Your task to perform on an android device: change the clock display to show seconds Image 0: 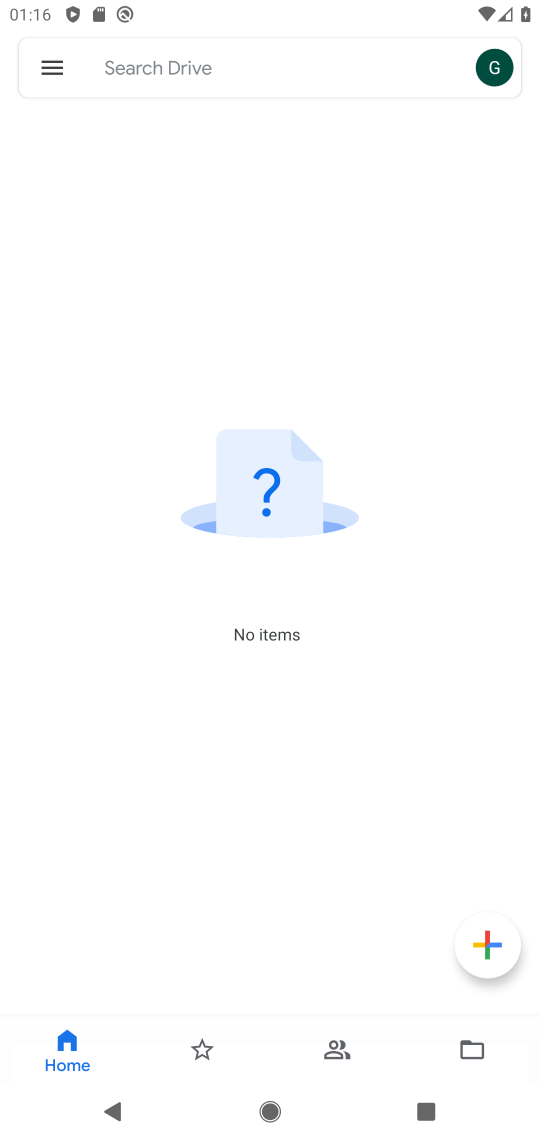
Step 0: press home button
Your task to perform on an android device: change the clock display to show seconds Image 1: 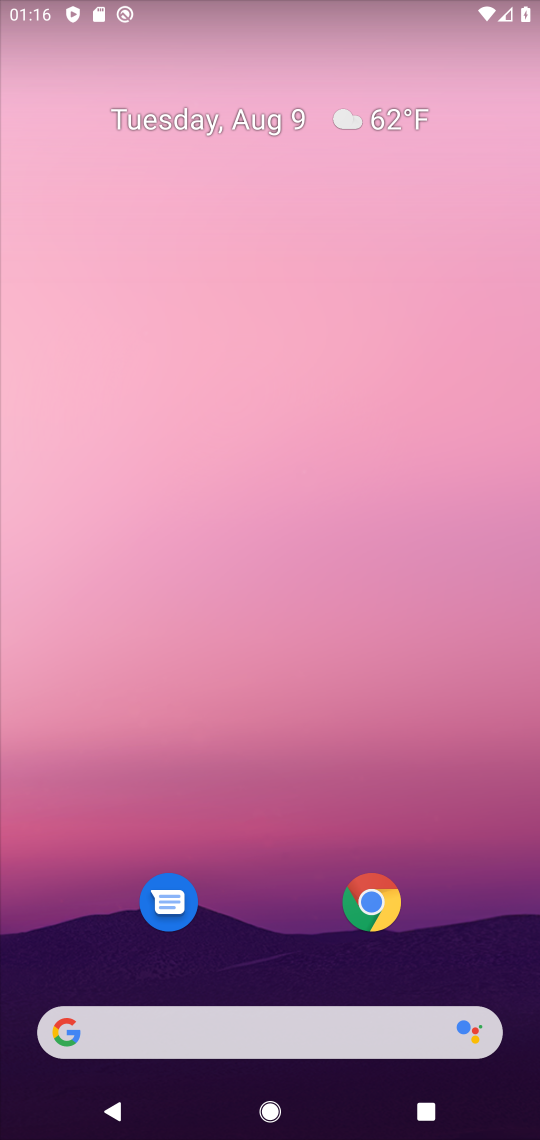
Step 1: drag from (304, 1018) to (367, 218)
Your task to perform on an android device: change the clock display to show seconds Image 2: 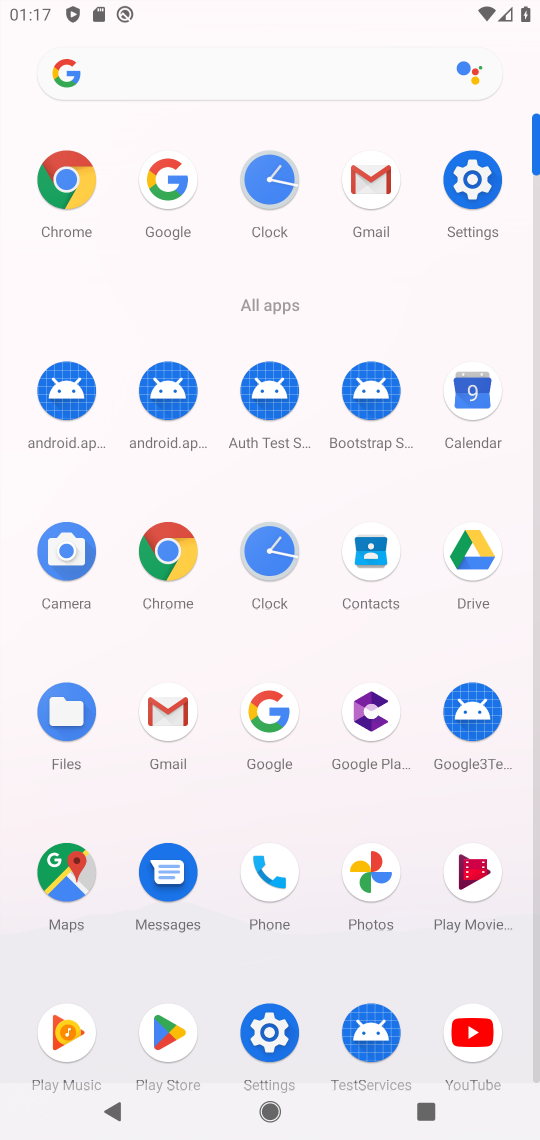
Step 2: click (250, 195)
Your task to perform on an android device: change the clock display to show seconds Image 3: 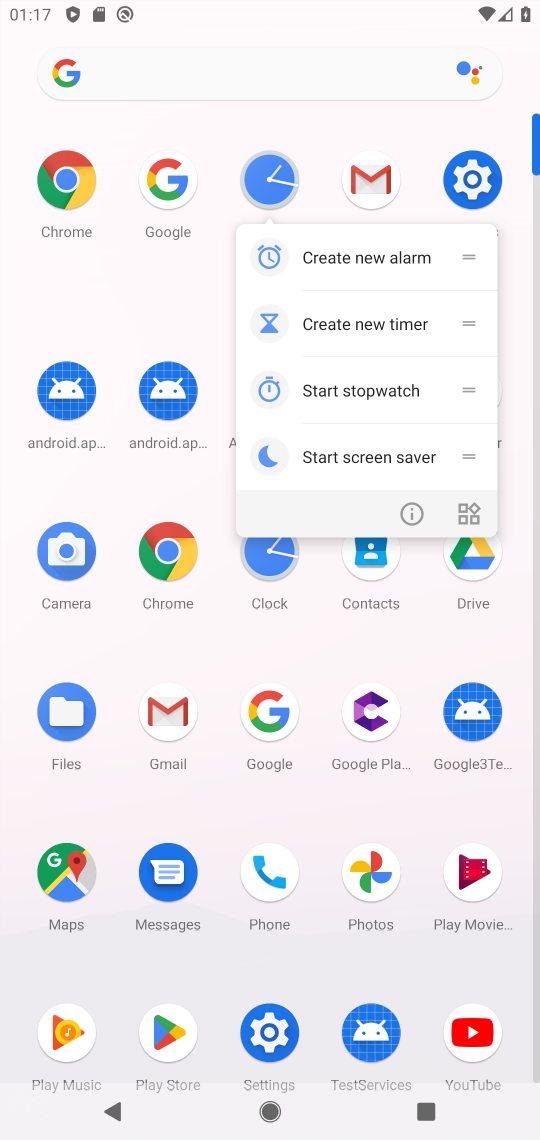
Step 3: click (274, 181)
Your task to perform on an android device: change the clock display to show seconds Image 4: 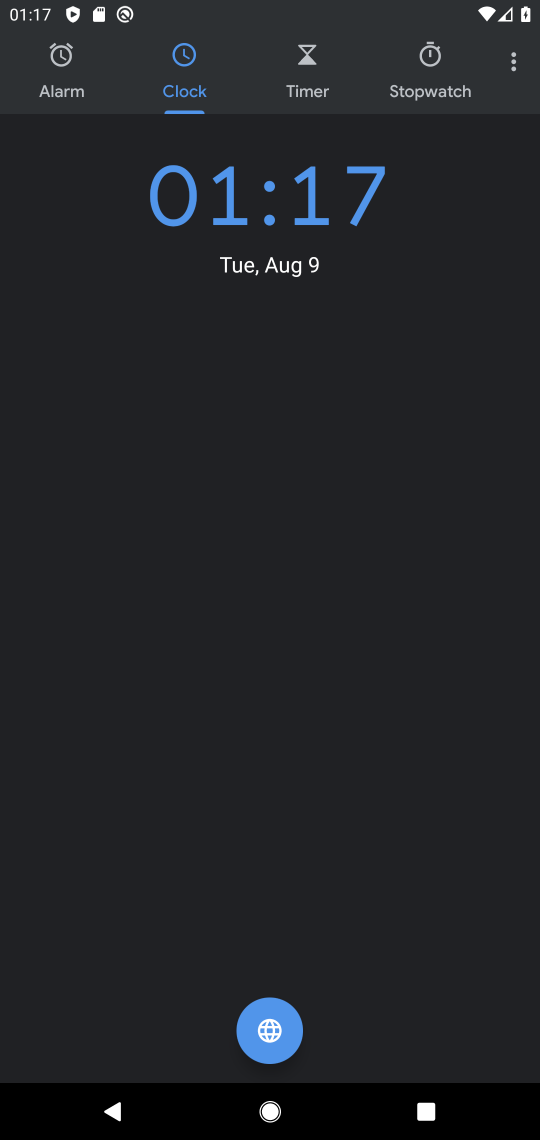
Step 4: click (508, 62)
Your task to perform on an android device: change the clock display to show seconds Image 5: 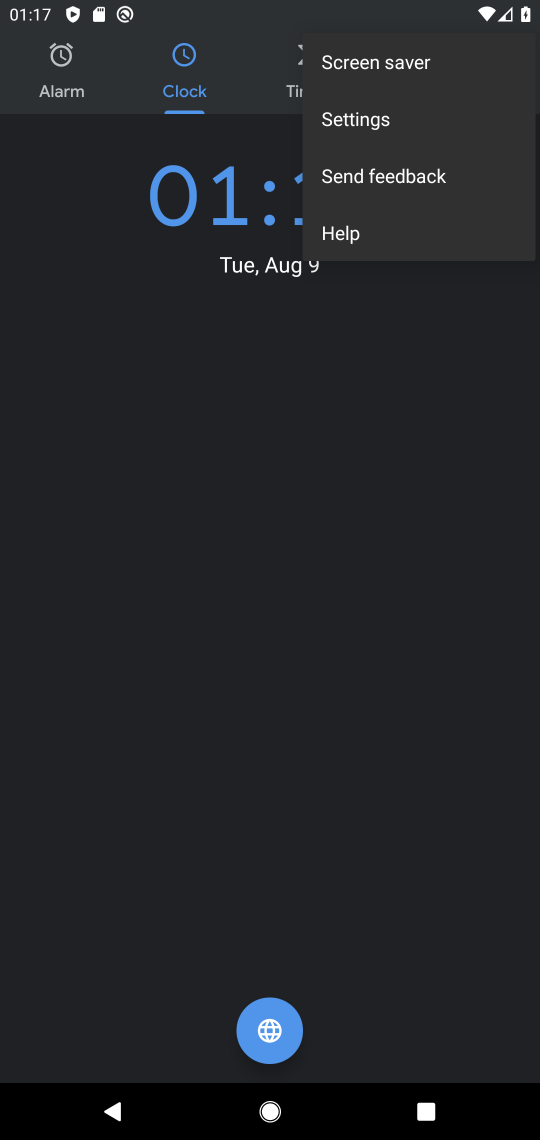
Step 5: click (352, 124)
Your task to perform on an android device: change the clock display to show seconds Image 6: 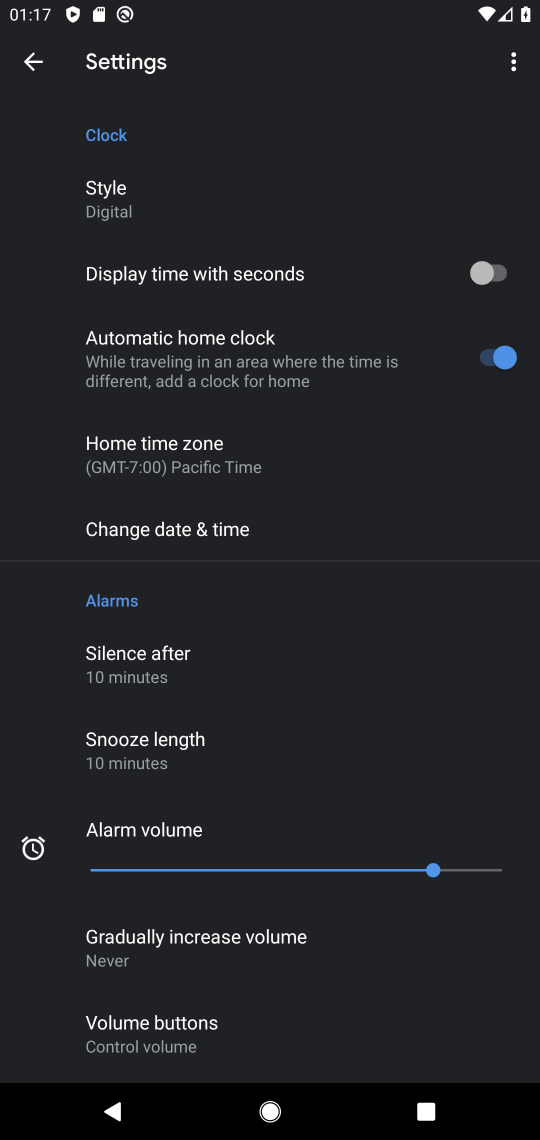
Step 6: click (501, 280)
Your task to perform on an android device: change the clock display to show seconds Image 7: 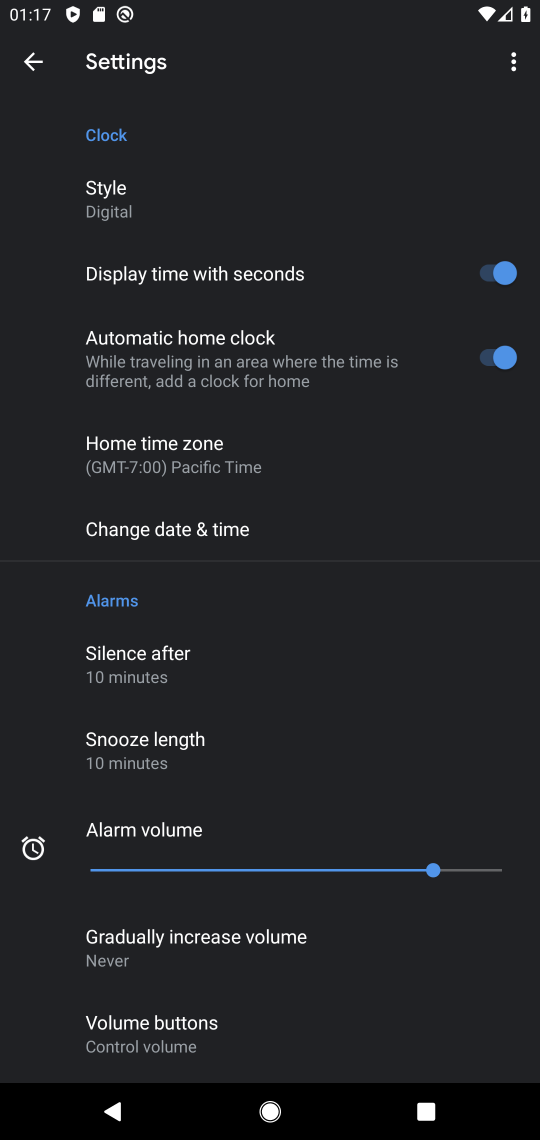
Step 7: task complete